Your task to perform on an android device: What is the recent news? Image 0: 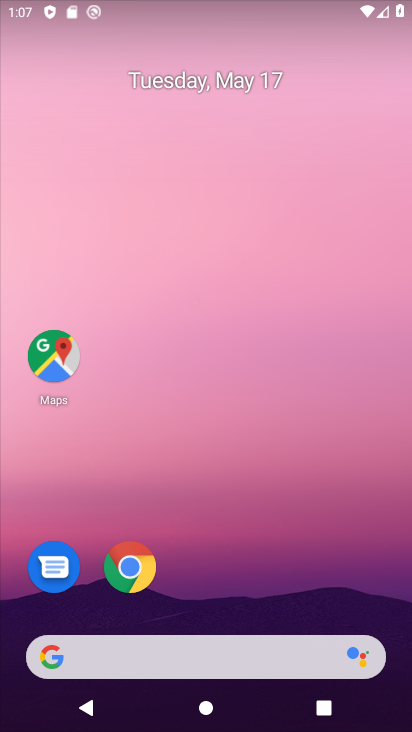
Step 0: drag from (21, 236) to (405, 296)
Your task to perform on an android device: What is the recent news? Image 1: 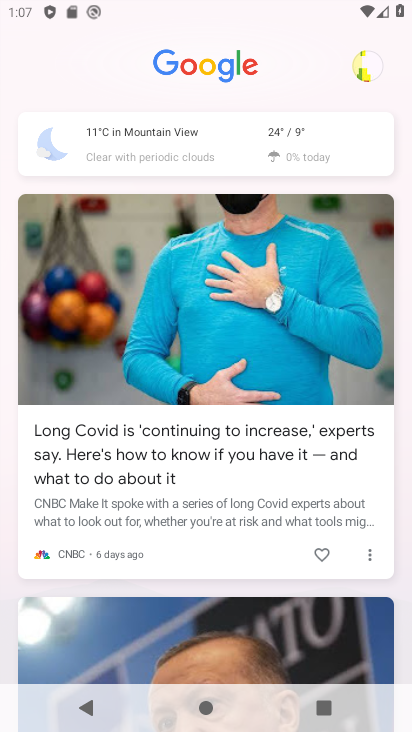
Step 1: task complete